Your task to perform on an android device: Open Google Maps Image 0: 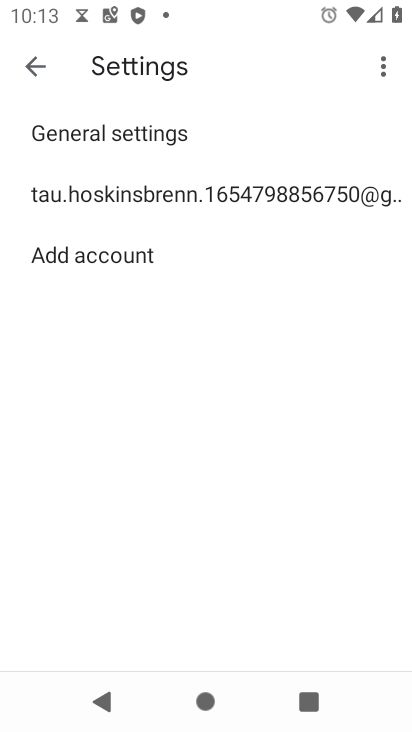
Step 0: press home button
Your task to perform on an android device: Open Google Maps Image 1: 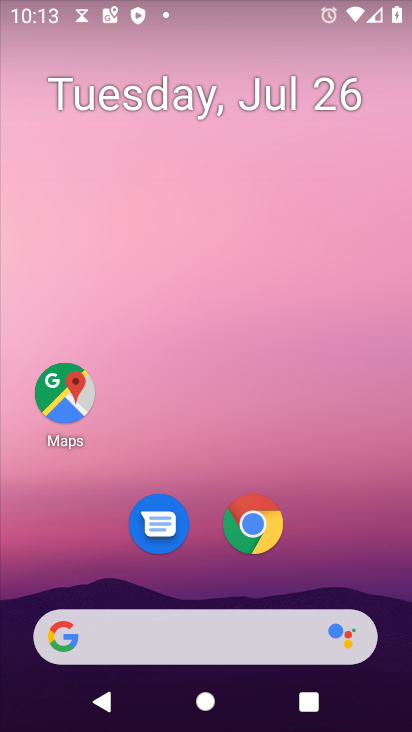
Step 1: click (60, 404)
Your task to perform on an android device: Open Google Maps Image 2: 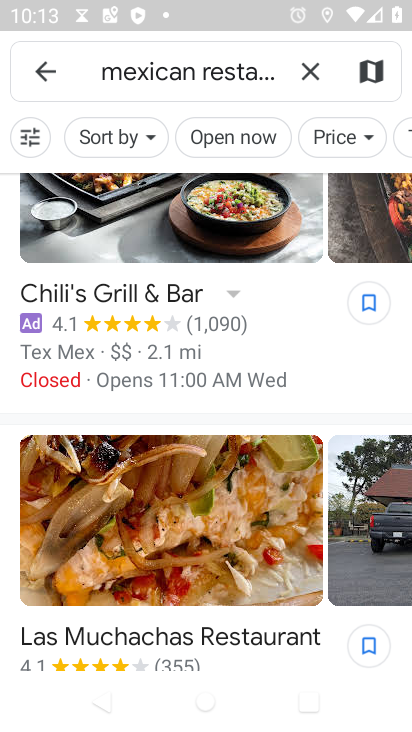
Step 2: click (43, 70)
Your task to perform on an android device: Open Google Maps Image 3: 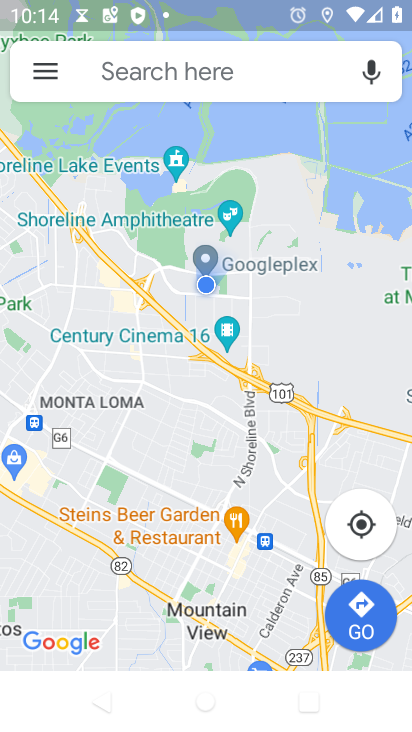
Step 3: task complete